Your task to perform on an android device: set default search engine in the chrome app Image 0: 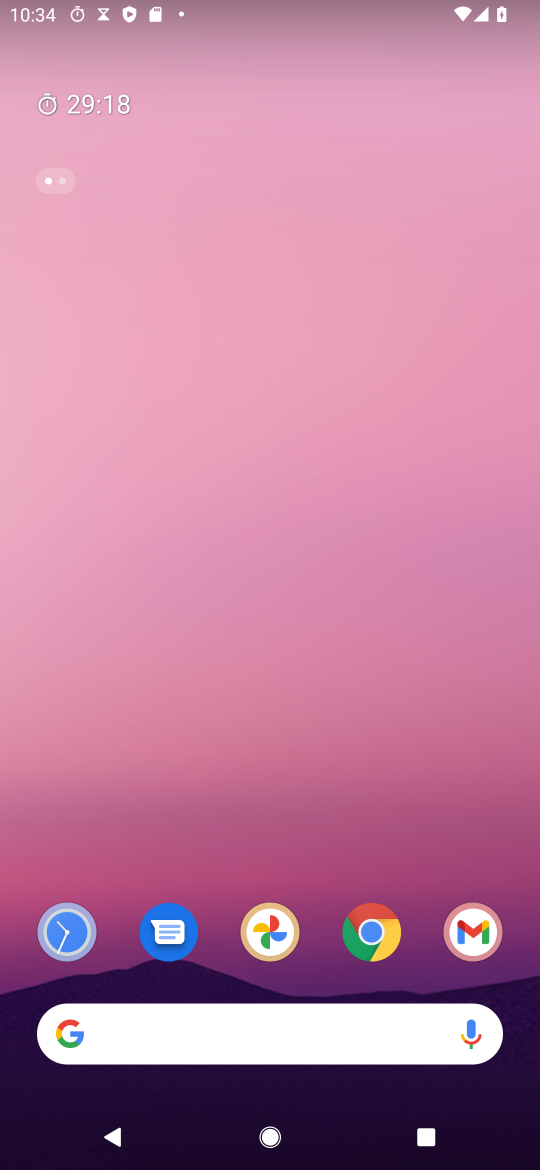
Step 0: drag from (389, 851) to (340, 149)
Your task to perform on an android device: set default search engine in the chrome app Image 1: 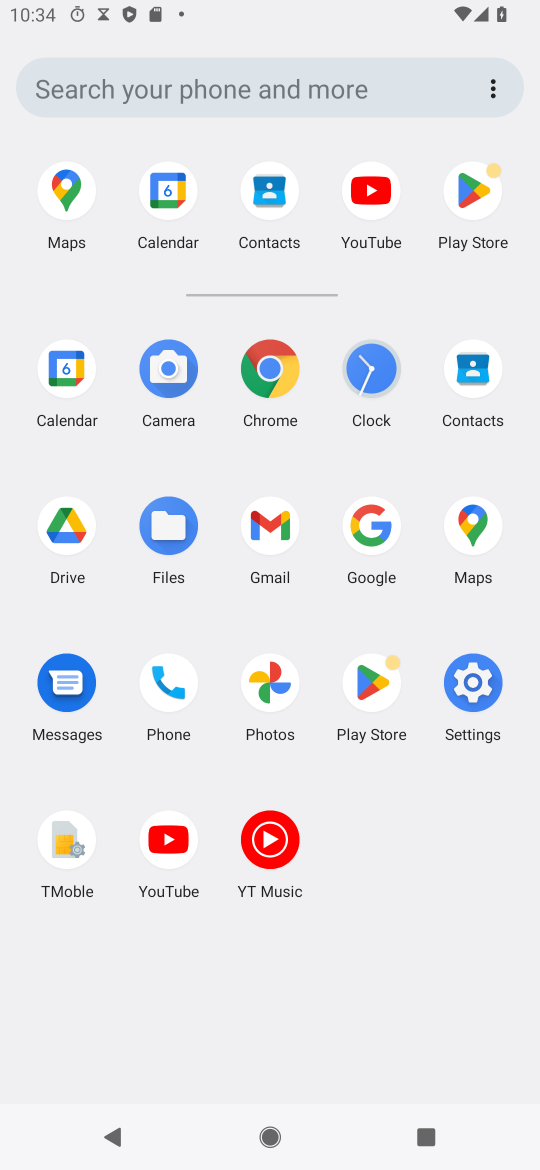
Step 1: click (276, 384)
Your task to perform on an android device: set default search engine in the chrome app Image 2: 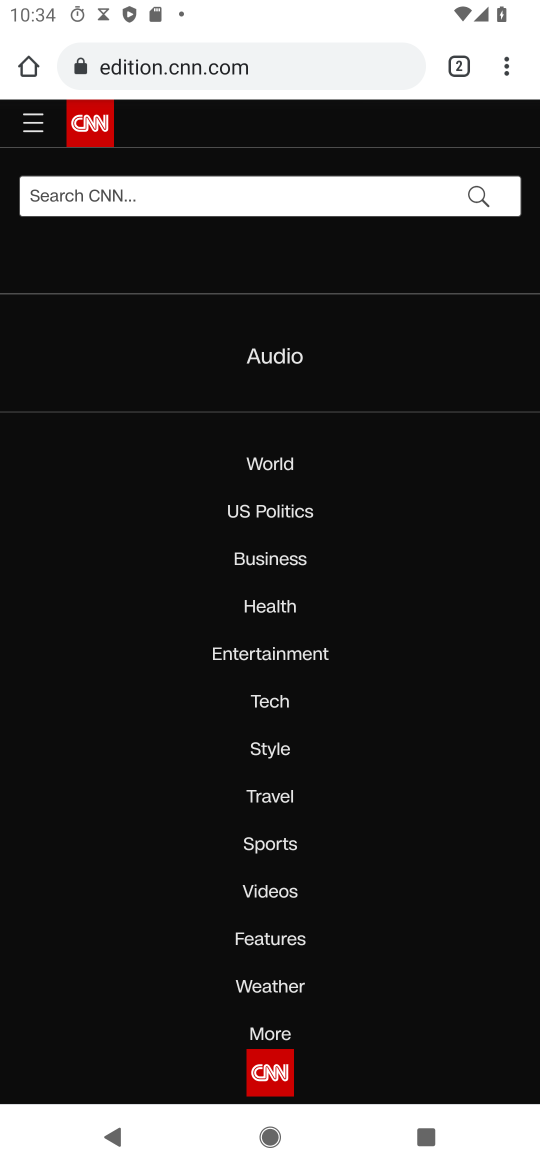
Step 2: click (521, 66)
Your task to perform on an android device: set default search engine in the chrome app Image 3: 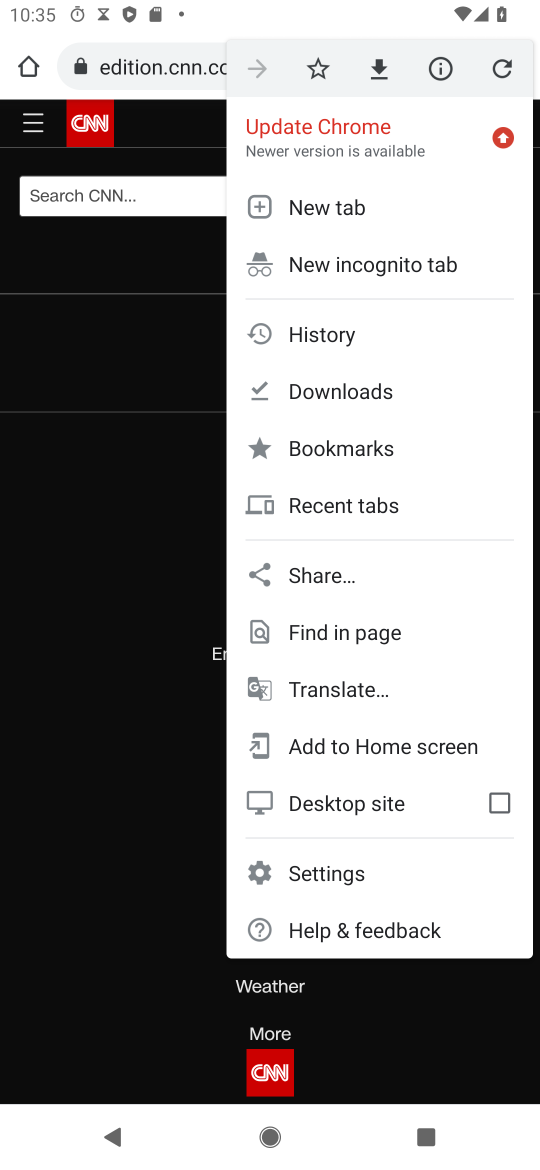
Step 3: click (370, 867)
Your task to perform on an android device: set default search engine in the chrome app Image 4: 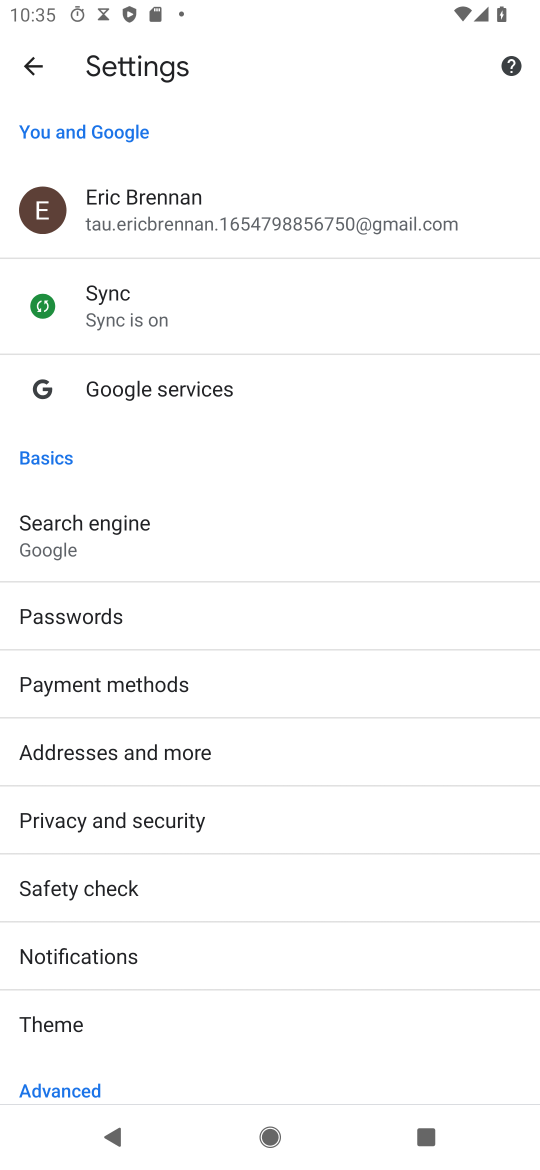
Step 4: drag from (205, 214) to (185, 24)
Your task to perform on an android device: set default search engine in the chrome app Image 5: 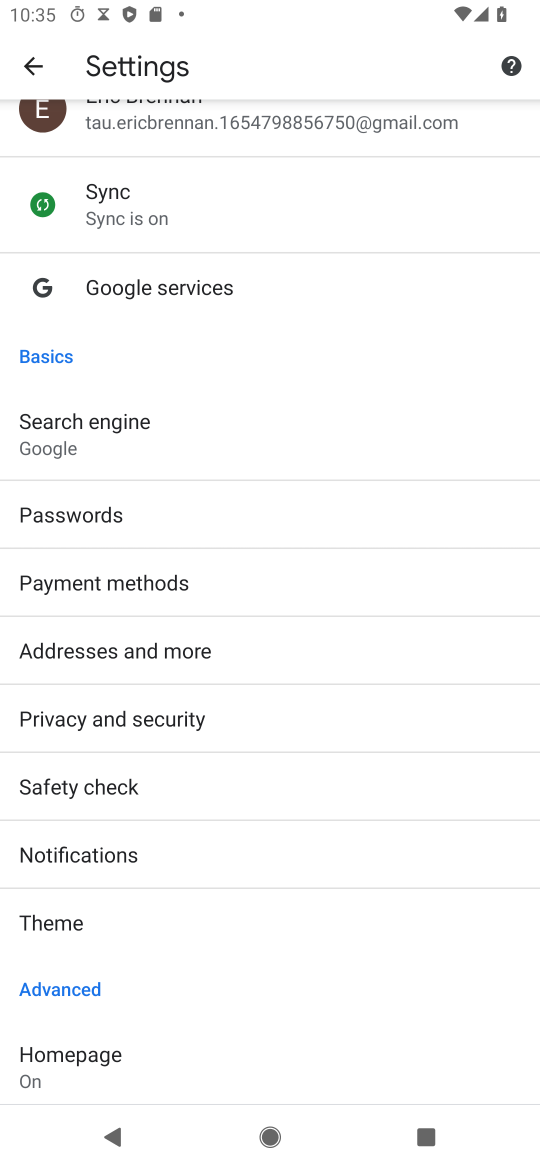
Step 5: click (187, 442)
Your task to perform on an android device: set default search engine in the chrome app Image 6: 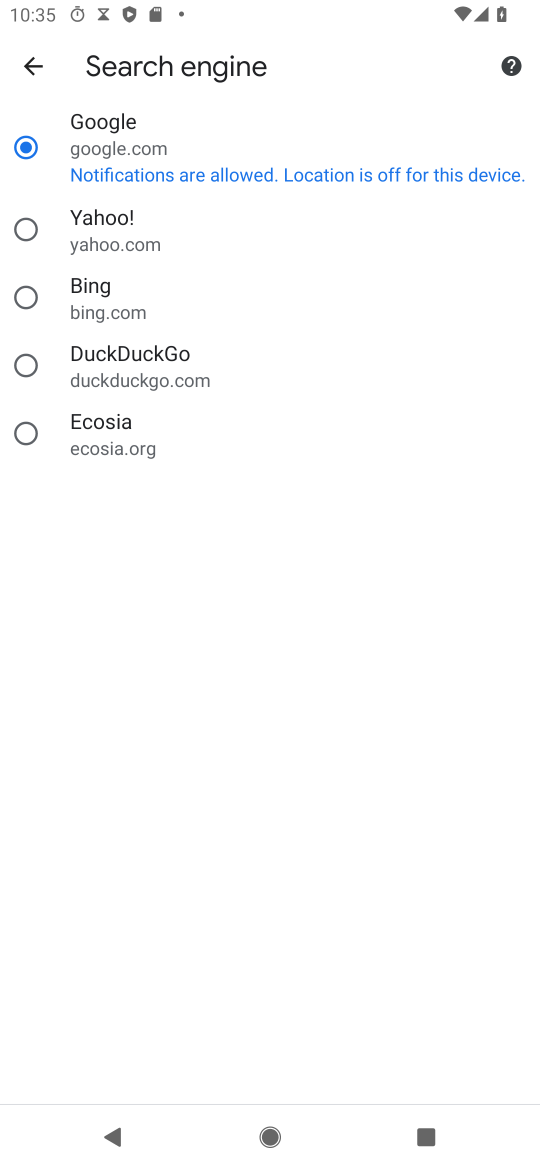
Step 6: task complete